Your task to perform on an android device: open a new tab in the chrome app Image 0: 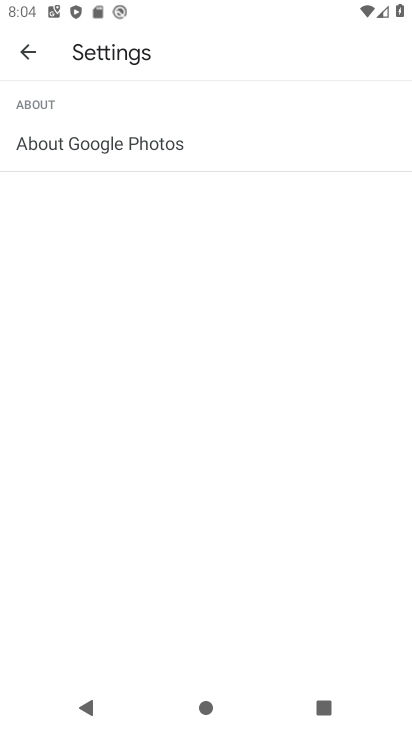
Step 0: task complete